Your task to perform on an android device: Search for Mexican restaurants on Maps Image 0: 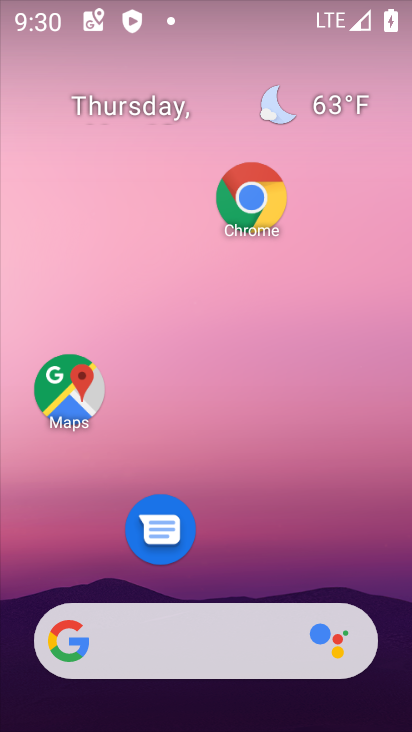
Step 0: drag from (263, 616) to (239, 424)
Your task to perform on an android device: Search for Mexican restaurants on Maps Image 1: 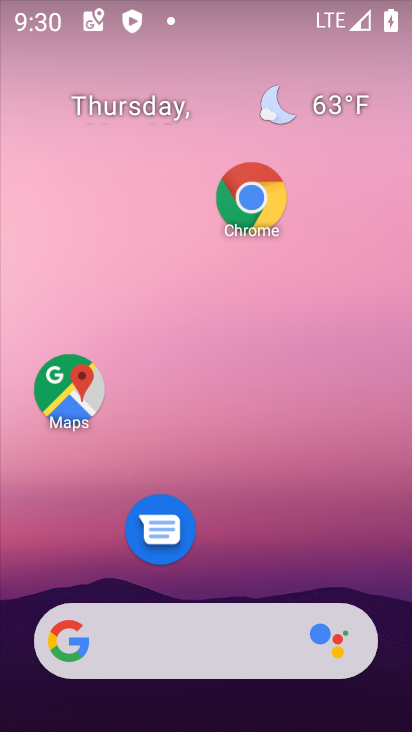
Step 1: drag from (256, 580) to (392, 42)
Your task to perform on an android device: Search for Mexican restaurants on Maps Image 2: 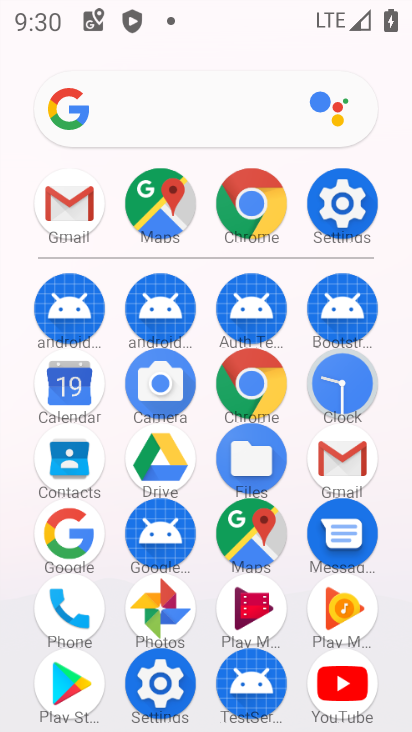
Step 2: click (254, 546)
Your task to perform on an android device: Search for Mexican restaurants on Maps Image 3: 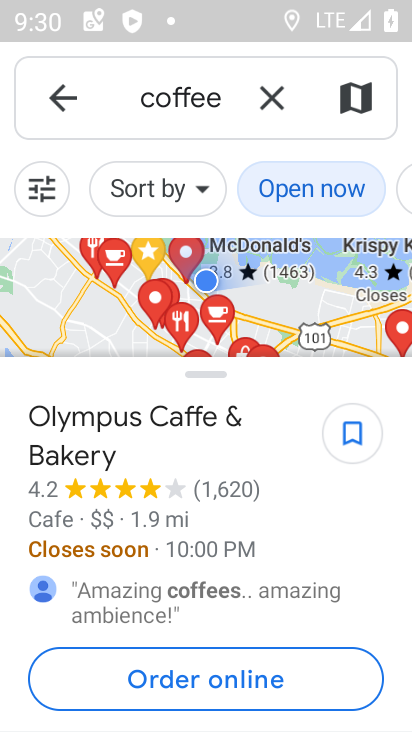
Step 3: click (266, 98)
Your task to perform on an android device: Search for Mexican restaurants on Maps Image 4: 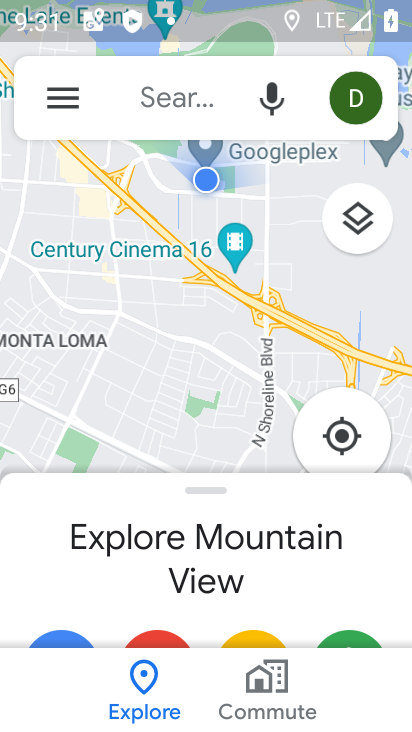
Step 4: click (223, 111)
Your task to perform on an android device: Search for Mexican restaurants on Maps Image 5: 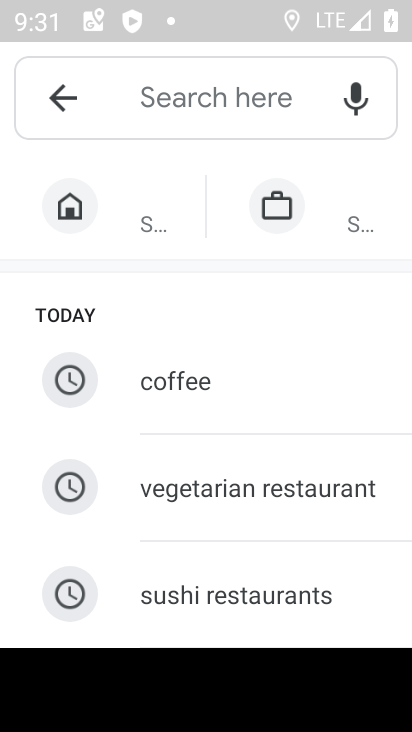
Step 5: type "mexican restaurants"
Your task to perform on an android device: Search for Mexican restaurants on Maps Image 6: 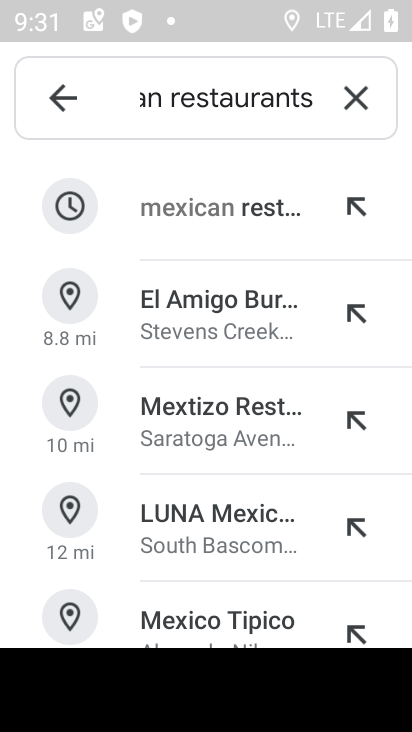
Step 6: click (254, 207)
Your task to perform on an android device: Search for Mexican restaurants on Maps Image 7: 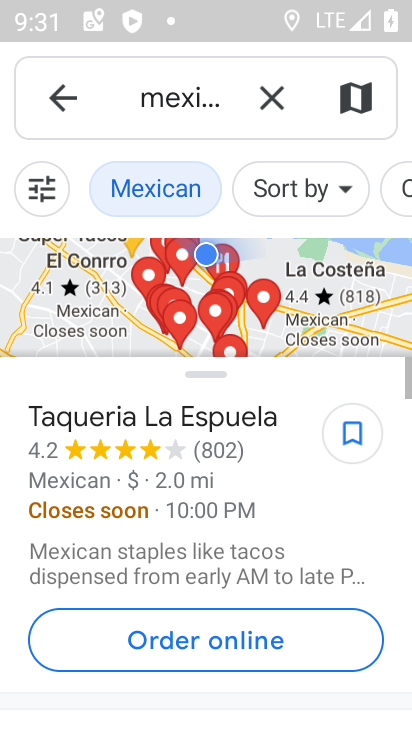
Step 7: task complete